Your task to perform on an android device: Open my contact list Image 0: 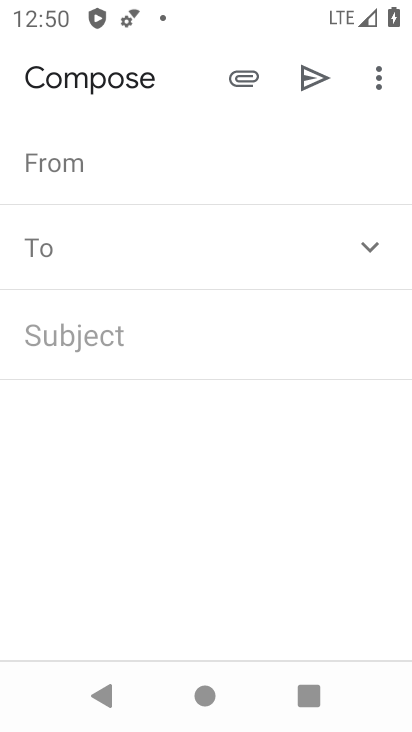
Step 0: click (368, 510)
Your task to perform on an android device: Open my contact list Image 1: 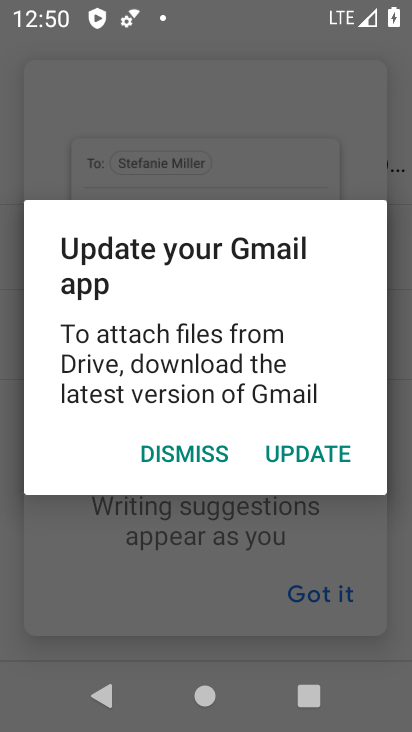
Step 1: press home button
Your task to perform on an android device: Open my contact list Image 2: 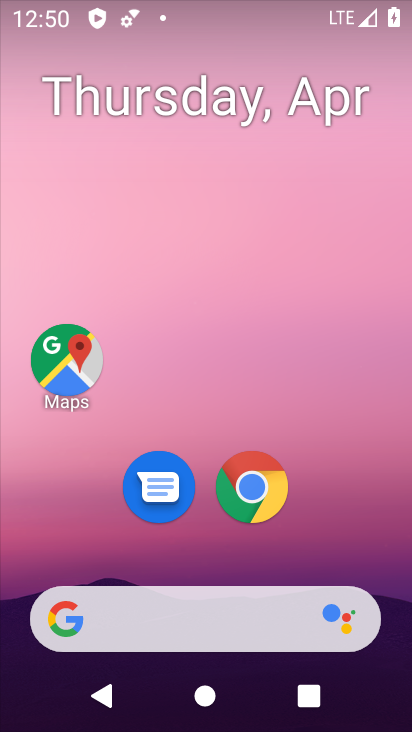
Step 2: drag from (370, 540) to (347, 163)
Your task to perform on an android device: Open my contact list Image 3: 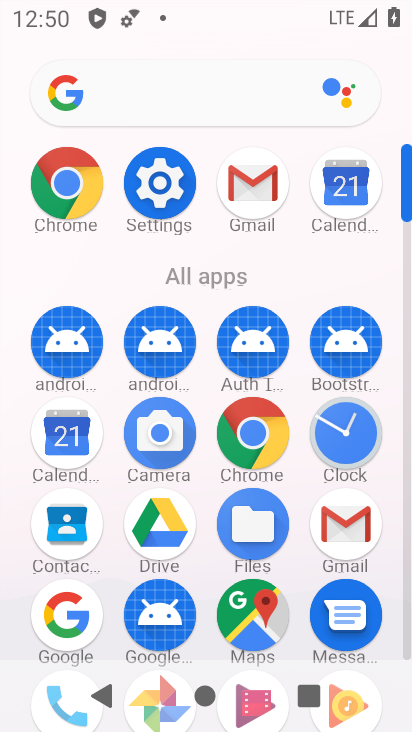
Step 3: click (79, 528)
Your task to perform on an android device: Open my contact list Image 4: 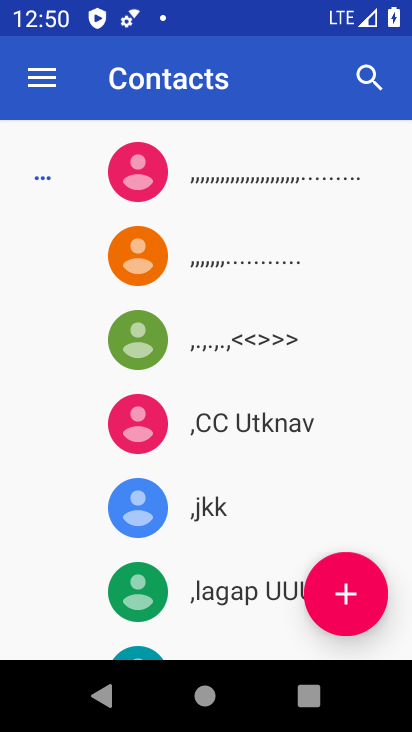
Step 4: task complete